Your task to perform on an android device: turn on priority inbox in the gmail app Image 0: 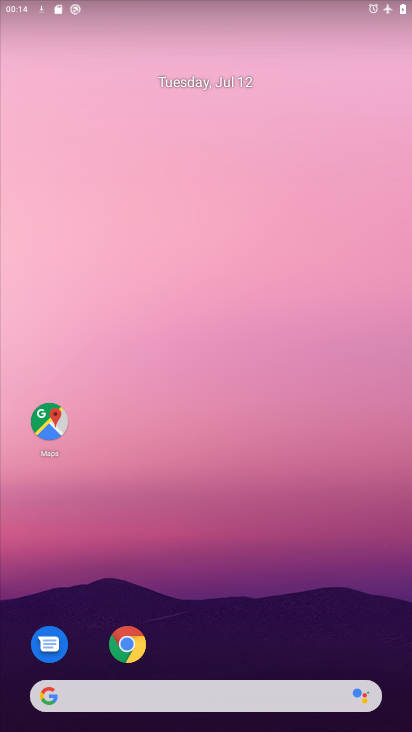
Step 0: drag from (182, 606) to (215, 141)
Your task to perform on an android device: turn on priority inbox in the gmail app Image 1: 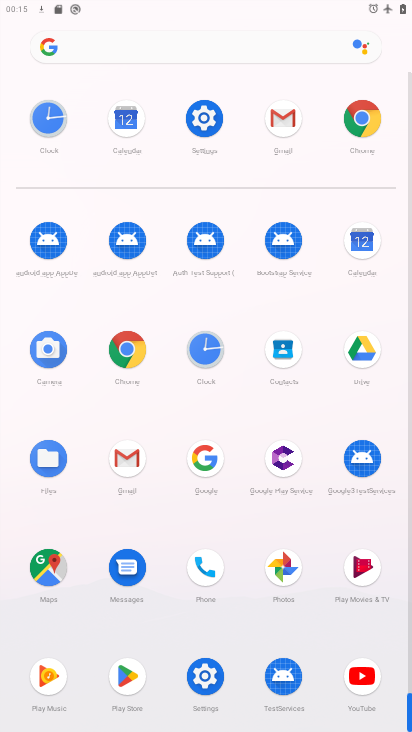
Step 1: click (296, 112)
Your task to perform on an android device: turn on priority inbox in the gmail app Image 2: 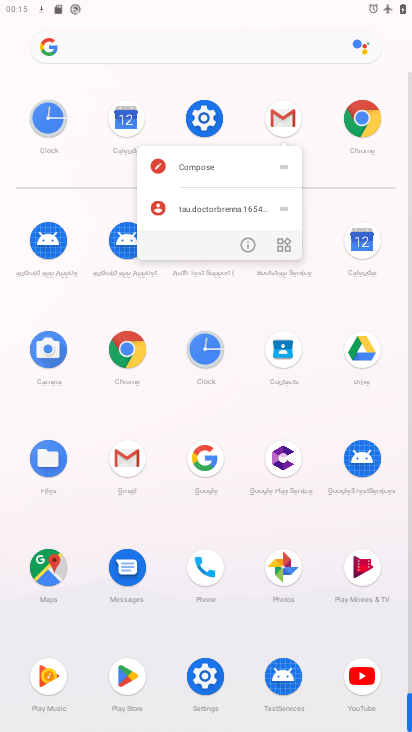
Step 2: click (273, 119)
Your task to perform on an android device: turn on priority inbox in the gmail app Image 3: 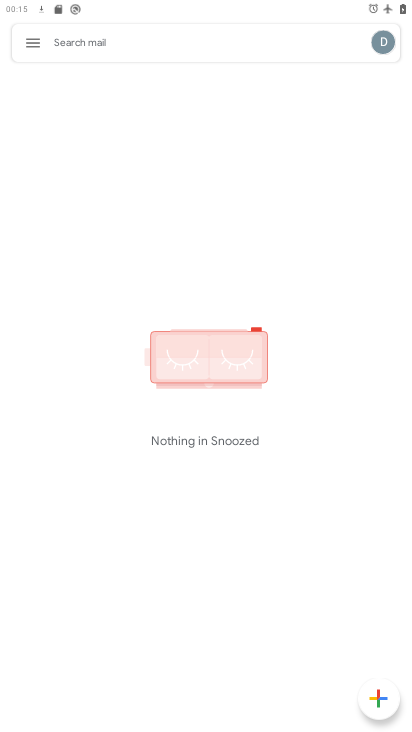
Step 3: click (23, 28)
Your task to perform on an android device: turn on priority inbox in the gmail app Image 4: 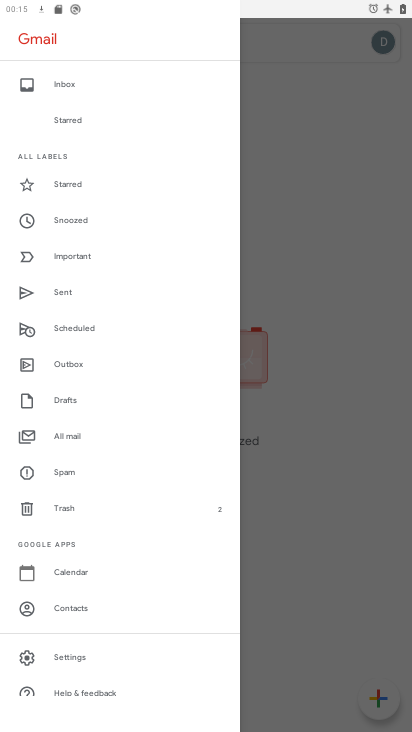
Step 4: click (72, 649)
Your task to perform on an android device: turn on priority inbox in the gmail app Image 5: 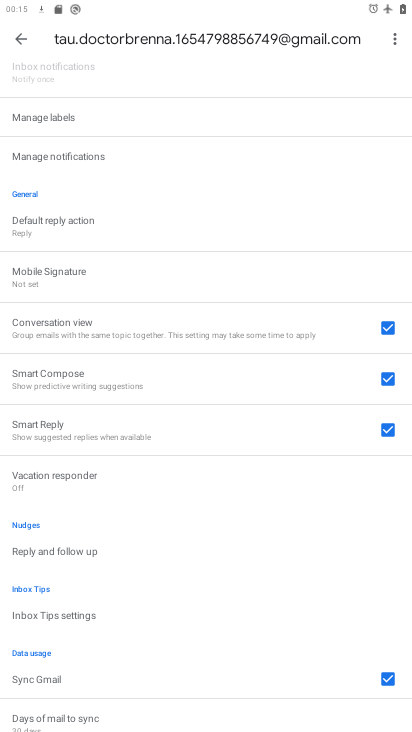
Step 5: drag from (106, 181) to (118, 519)
Your task to perform on an android device: turn on priority inbox in the gmail app Image 6: 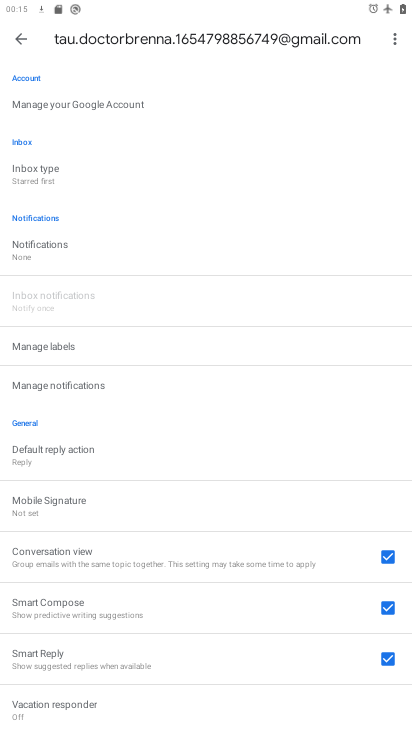
Step 6: click (65, 171)
Your task to perform on an android device: turn on priority inbox in the gmail app Image 7: 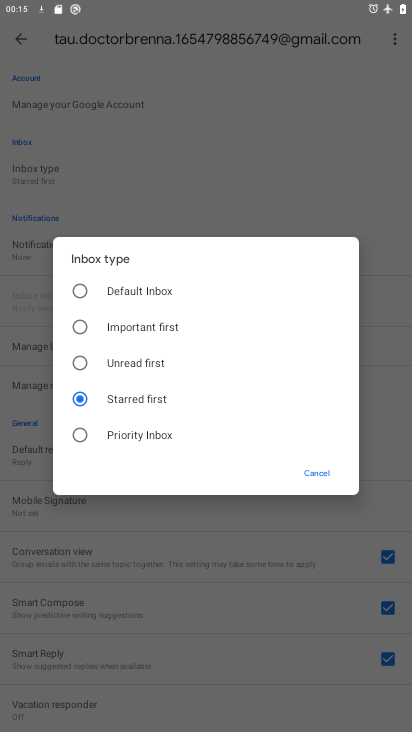
Step 7: click (143, 425)
Your task to perform on an android device: turn on priority inbox in the gmail app Image 8: 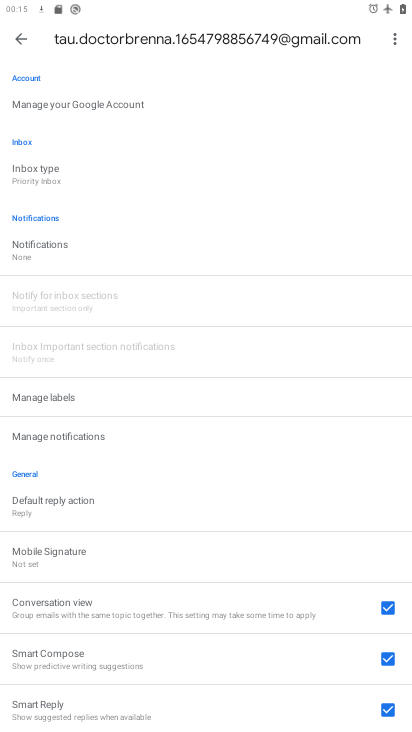
Step 8: task complete